Your task to perform on an android device: open a new tab in the chrome app Image 0: 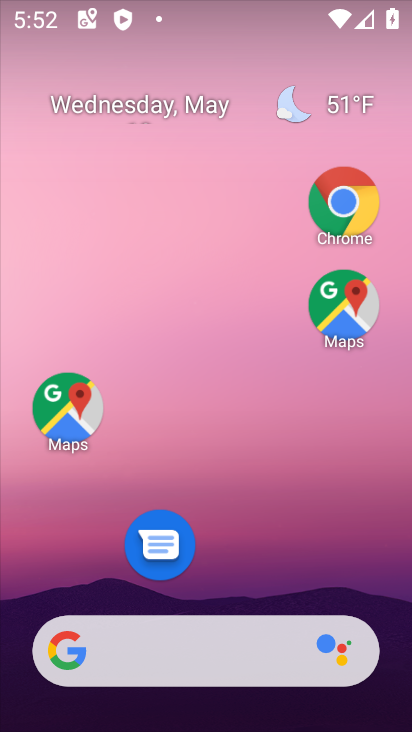
Step 0: click (345, 191)
Your task to perform on an android device: open a new tab in the chrome app Image 1: 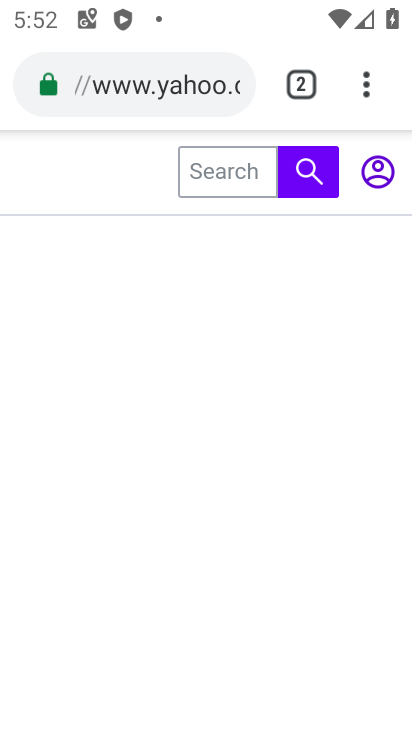
Step 1: click (297, 82)
Your task to perform on an android device: open a new tab in the chrome app Image 2: 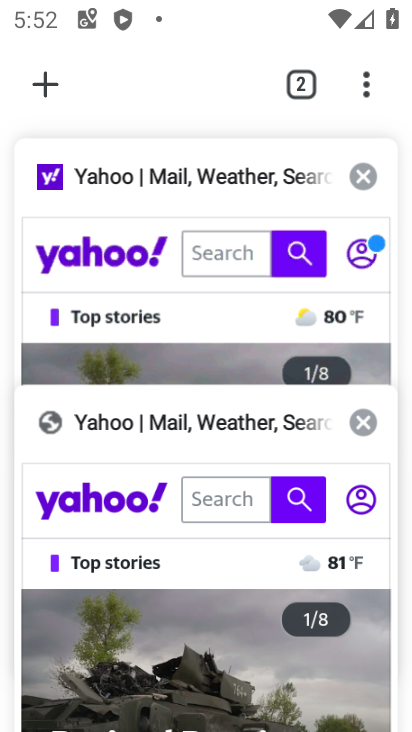
Step 2: click (55, 88)
Your task to perform on an android device: open a new tab in the chrome app Image 3: 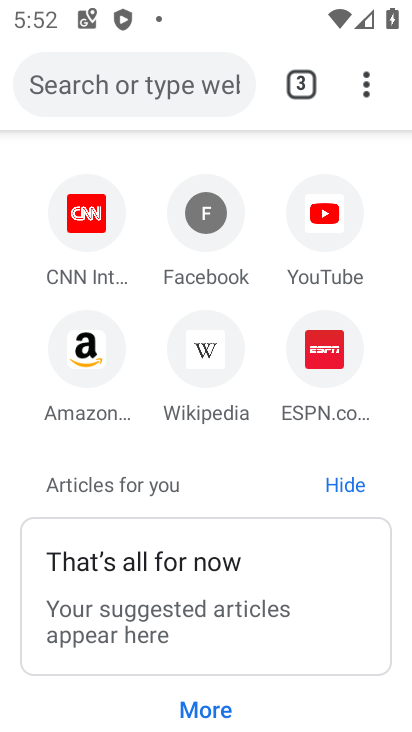
Step 3: task complete